Your task to perform on an android device: turn off smart reply in the gmail app Image 0: 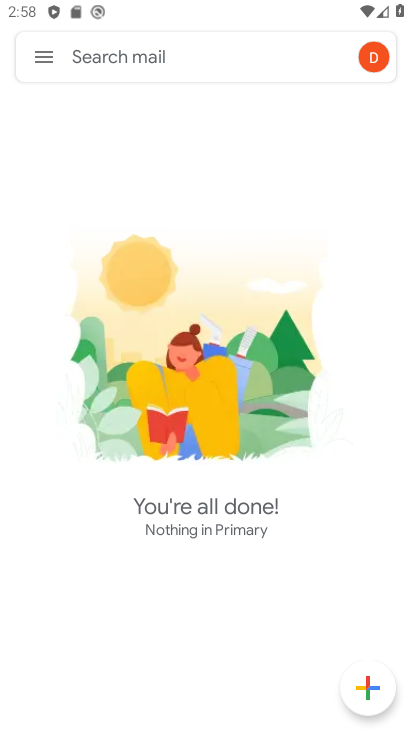
Step 0: click (49, 65)
Your task to perform on an android device: turn off smart reply in the gmail app Image 1: 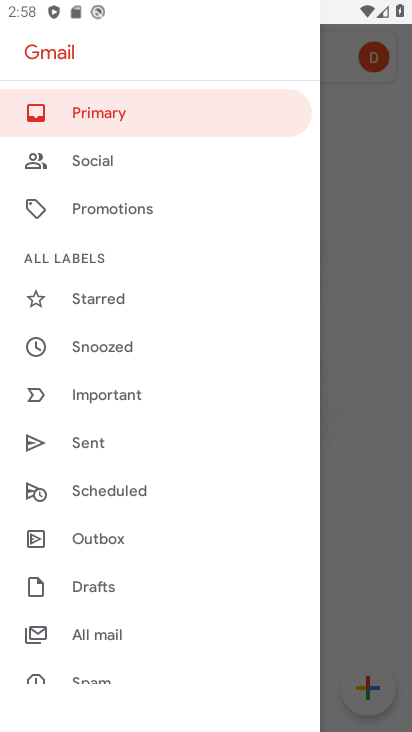
Step 1: drag from (173, 668) to (273, 108)
Your task to perform on an android device: turn off smart reply in the gmail app Image 2: 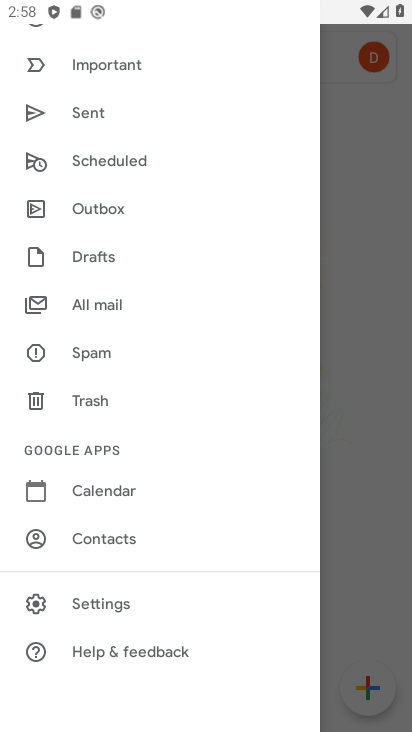
Step 2: click (124, 607)
Your task to perform on an android device: turn off smart reply in the gmail app Image 3: 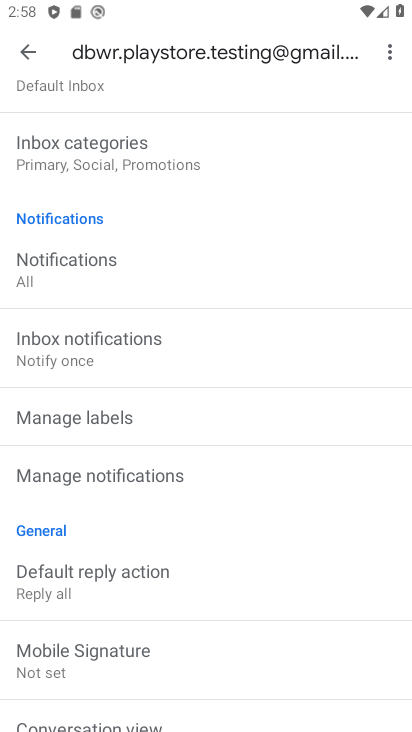
Step 3: drag from (131, 700) to (153, 191)
Your task to perform on an android device: turn off smart reply in the gmail app Image 4: 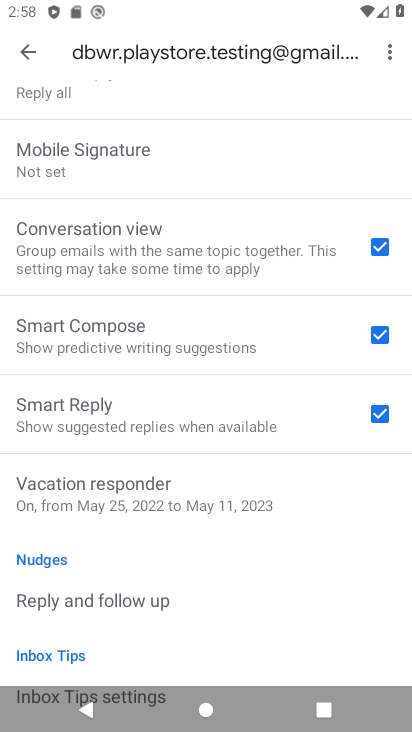
Step 4: drag from (155, 618) to (193, 336)
Your task to perform on an android device: turn off smart reply in the gmail app Image 5: 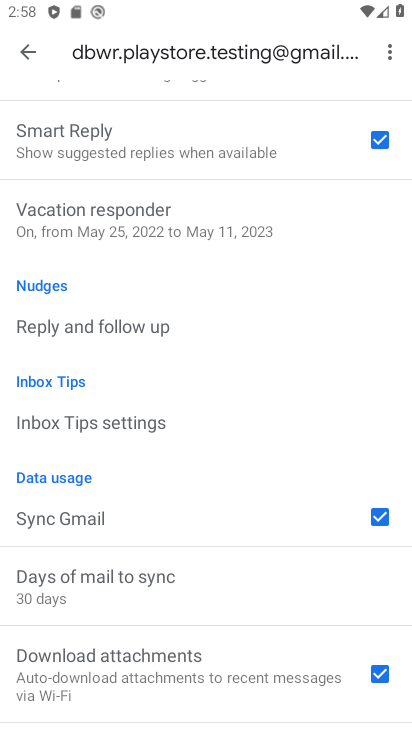
Step 5: click (326, 162)
Your task to perform on an android device: turn off smart reply in the gmail app Image 6: 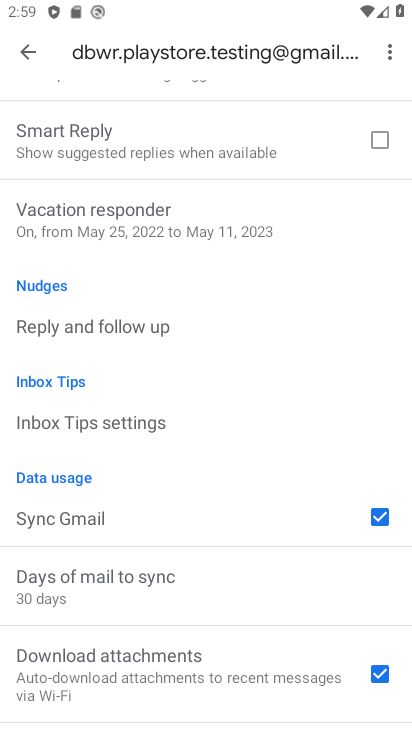
Step 6: task complete